Your task to perform on an android device: View the shopping cart on walmart. Search for macbook pro 13 inch on walmart, select the first entry, add it to the cart, then select checkout. Image 0: 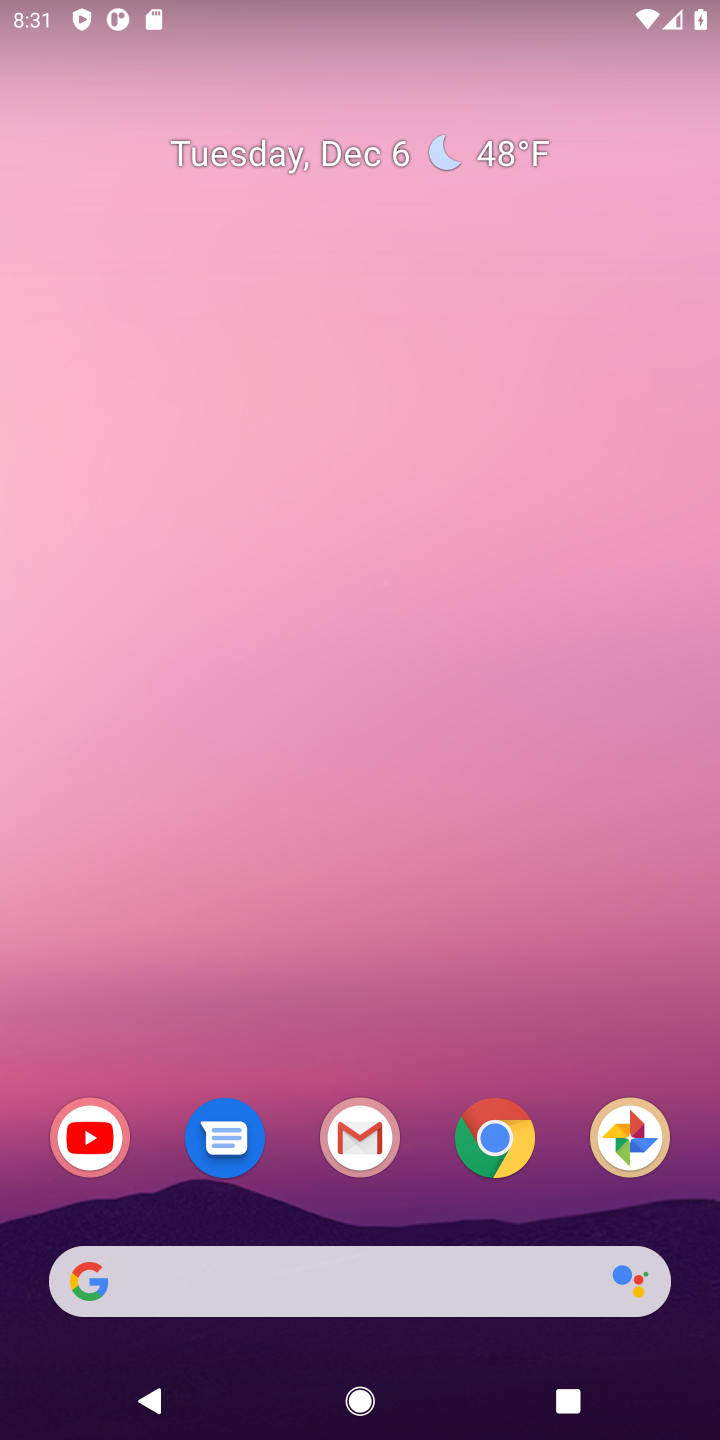
Step 0: click (517, 1138)
Your task to perform on an android device: View the shopping cart on walmart. Search for macbook pro 13 inch on walmart, select the first entry, add it to the cart, then select checkout. Image 1: 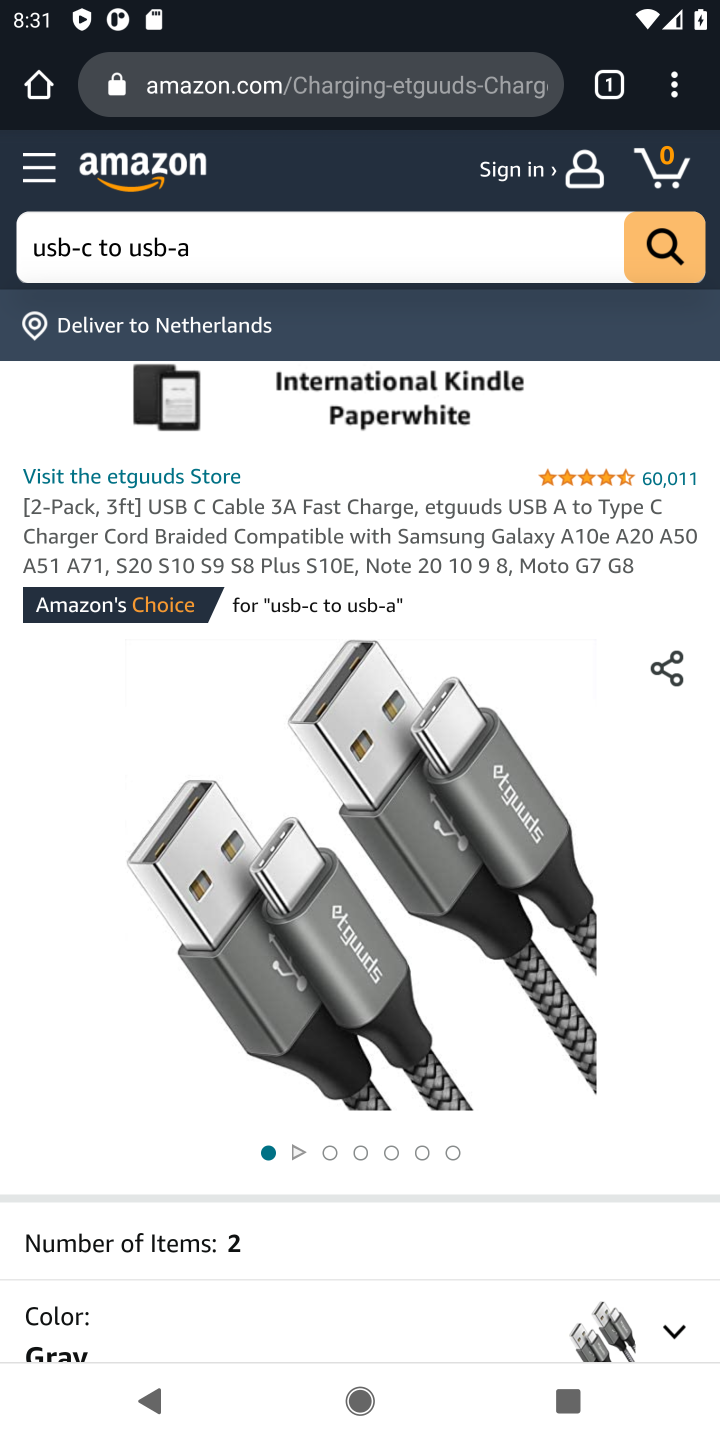
Step 1: click (255, 88)
Your task to perform on an android device: View the shopping cart on walmart. Search for macbook pro 13 inch on walmart, select the first entry, add it to the cart, then select checkout. Image 2: 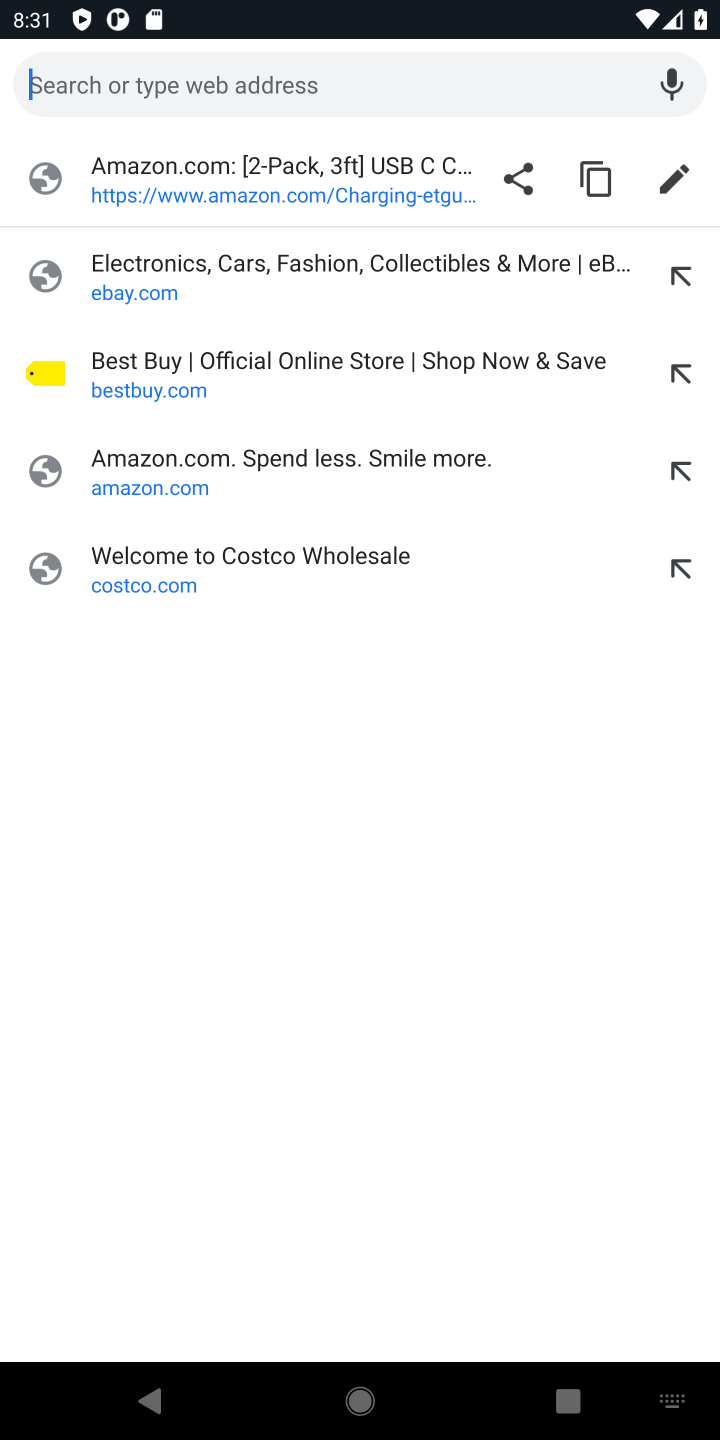
Step 2: type "walmart.com"
Your task to perform on an android device: View the shopping cart on walmart. Search for macbook pro 13 inch on walmart, select the first entry, add it to the cart, then select checkout. Image 3: 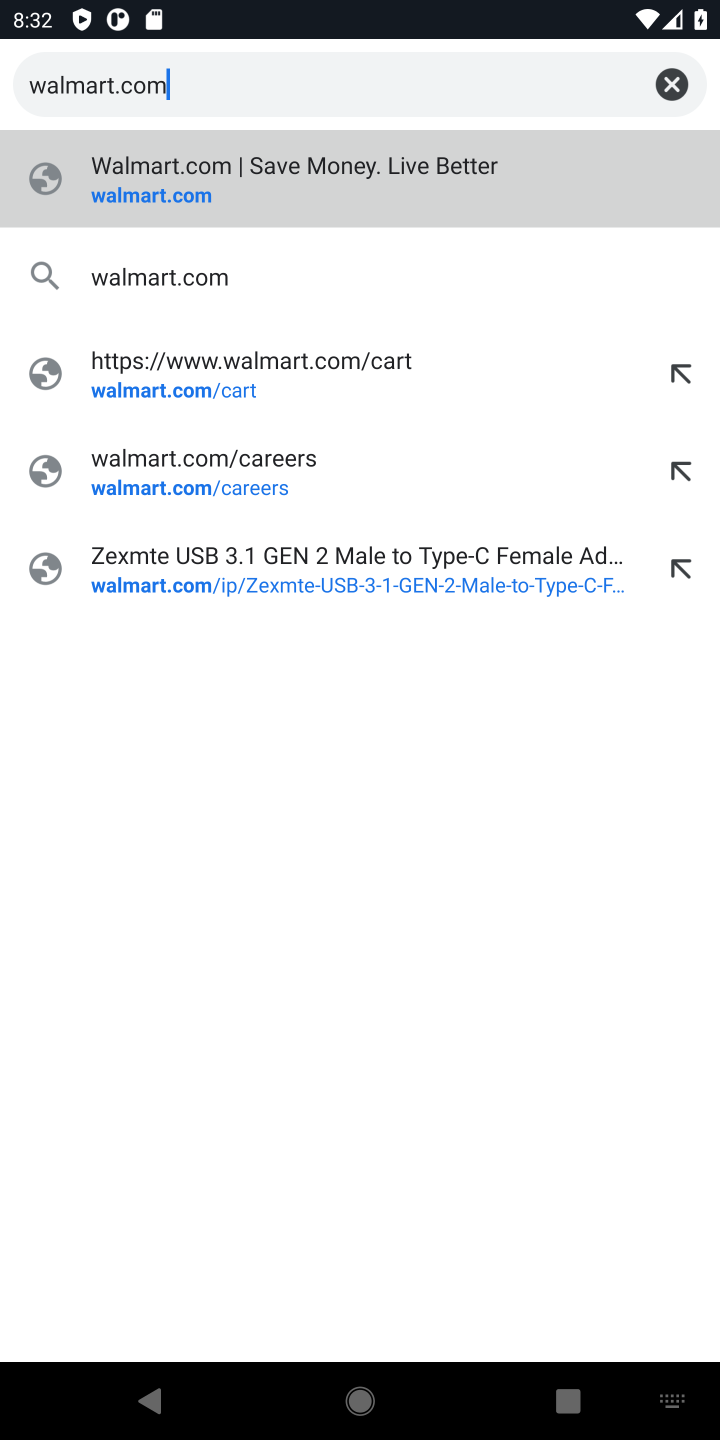
Step 3: click (138, 199)
Your task to perform on an android device: View the shopping cart on walmart. Search for macbook pro 13 inch on walmart, select the first entry, add it to the cart, then select checkout. Image 4: 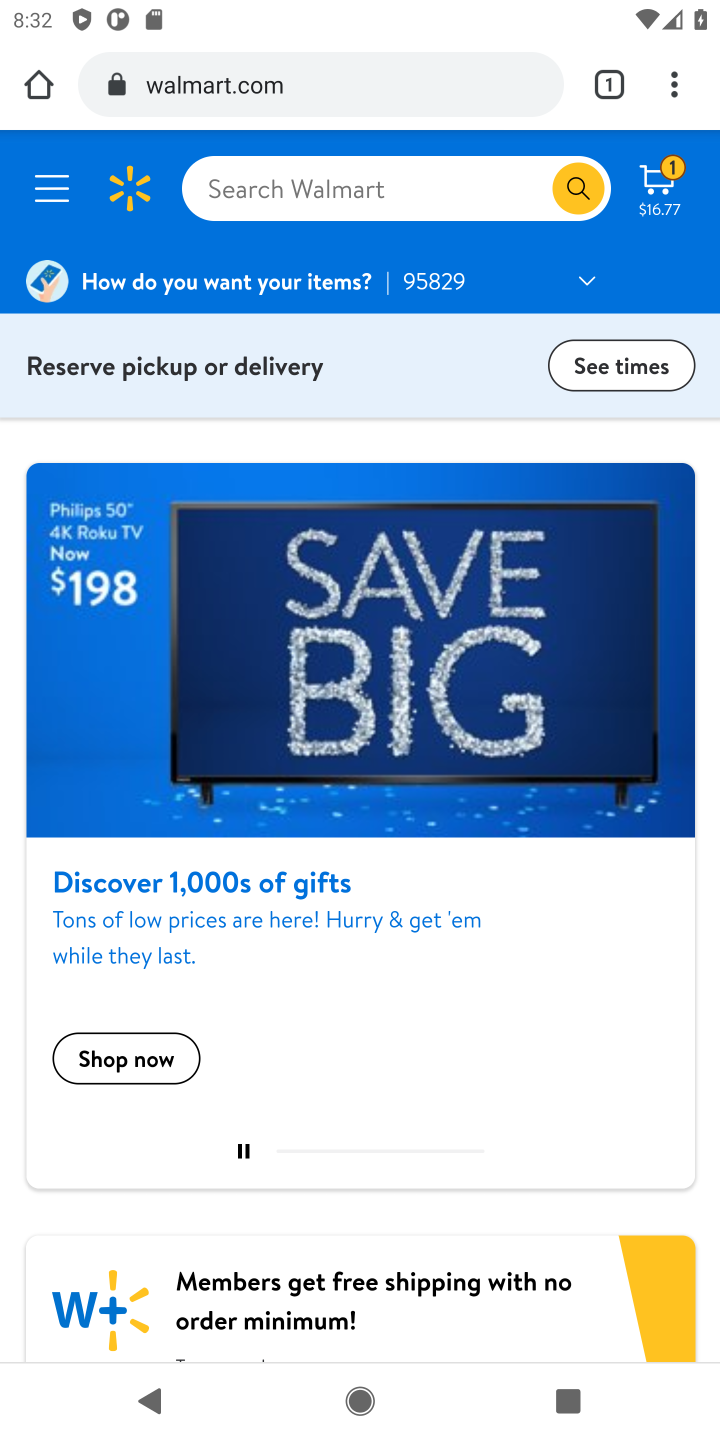
Step 4: click (661, 200)
Your task to perform on an android device: View the shopping cart on walmart. Search for macbook pro 13 inch on walmart, select the first entry, add it to the cart, then select checkout. Image 5: 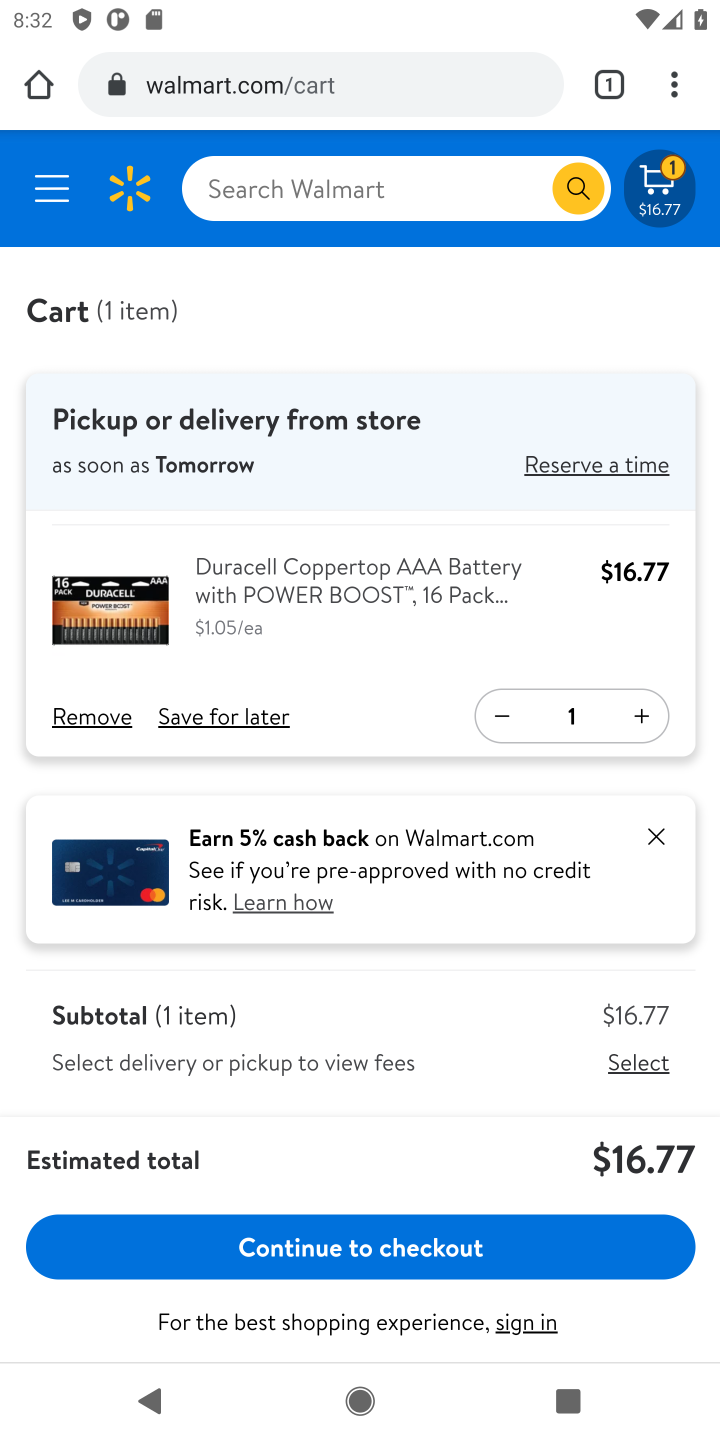
Step 5: click (323, 188)
Your task to perform on an android device: View the shopping cart on walmart. Search for macbook pro 13 inch on walmart, select the first entry, add it to the cart, then select checkout. Image 6: 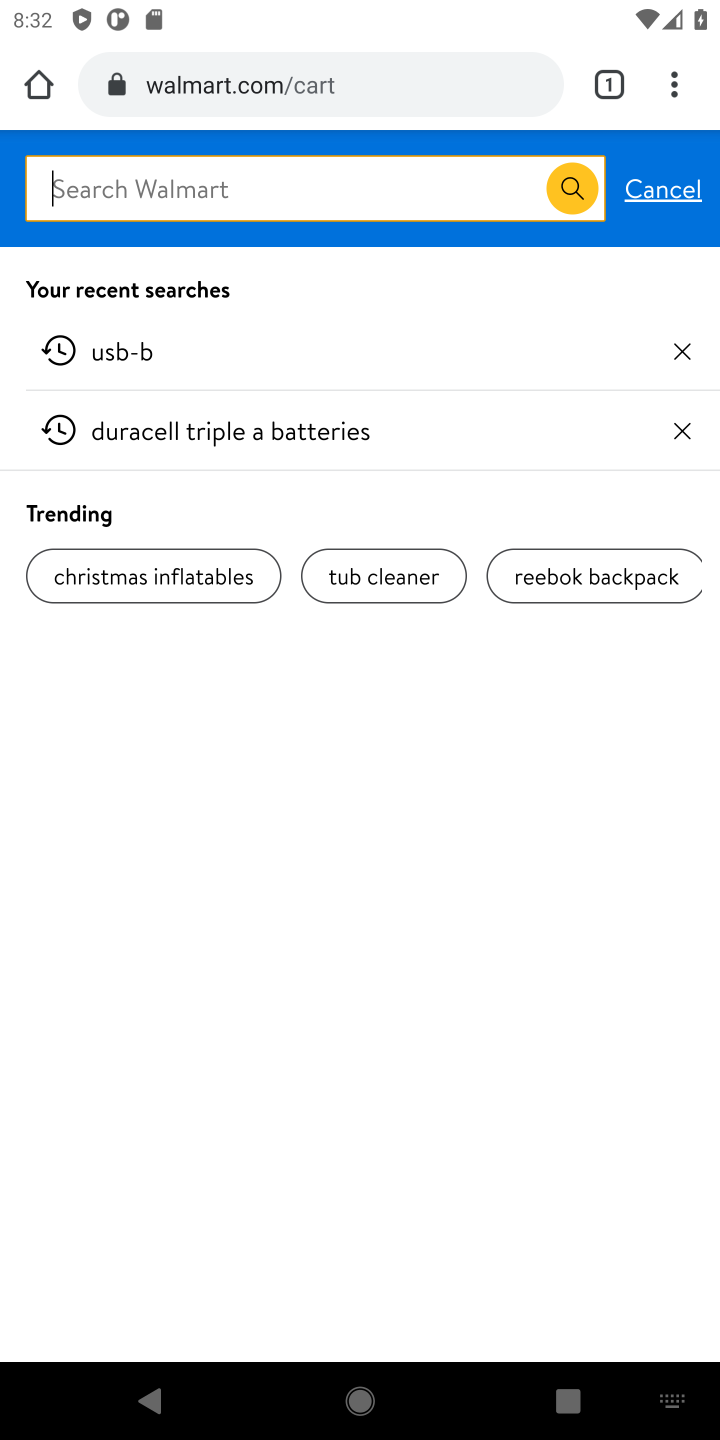
Step 6: type "macbook pro 13 inch"
Your task to perform on an android device: View the shopping cart on walmart. Search for macbook pro 13 inch on walmart, select the first entry, add it to the cart, then select checkout. Image 7: 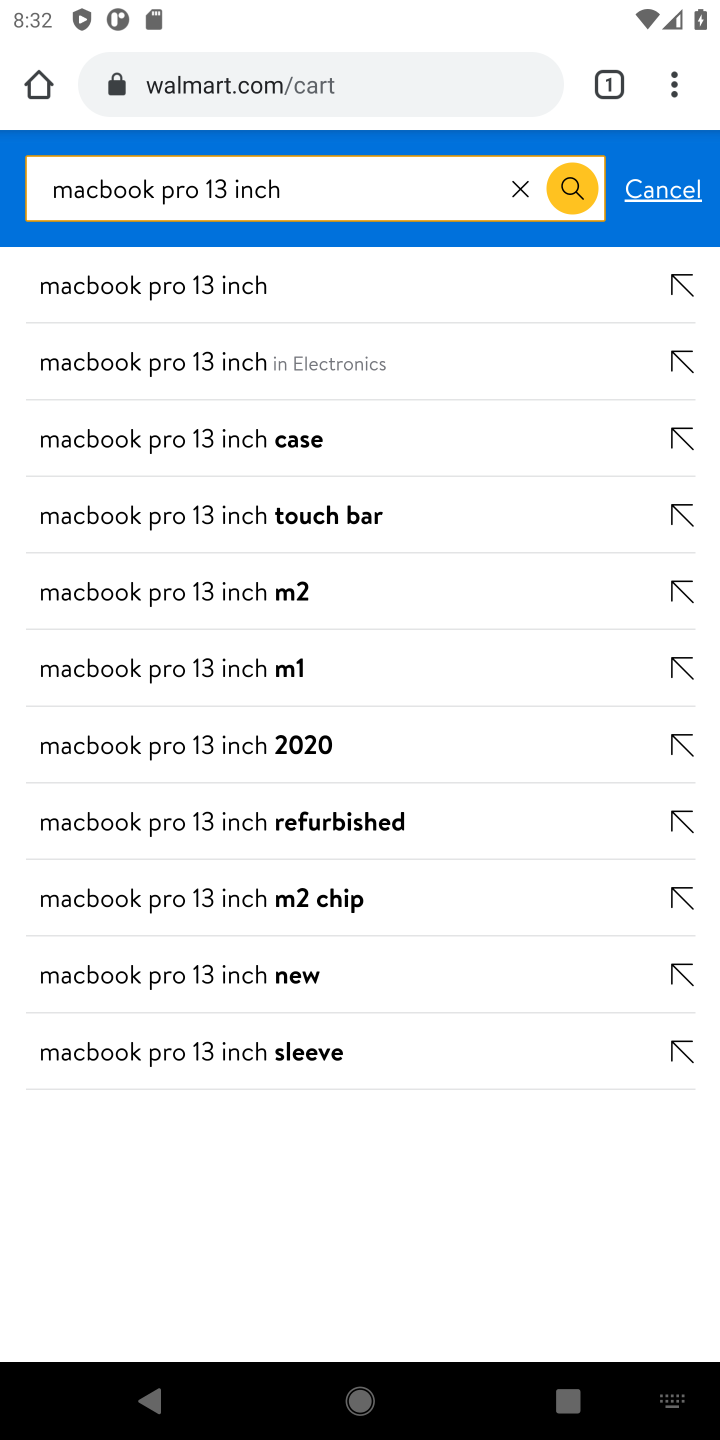
Step 7: click (194, 284)
Your task to perform on an android device: View the shopping cart on walmart. Search for macbook pro 13 inch on walmart, select the first entry, add it to the cart, then select checkout. Image 8: 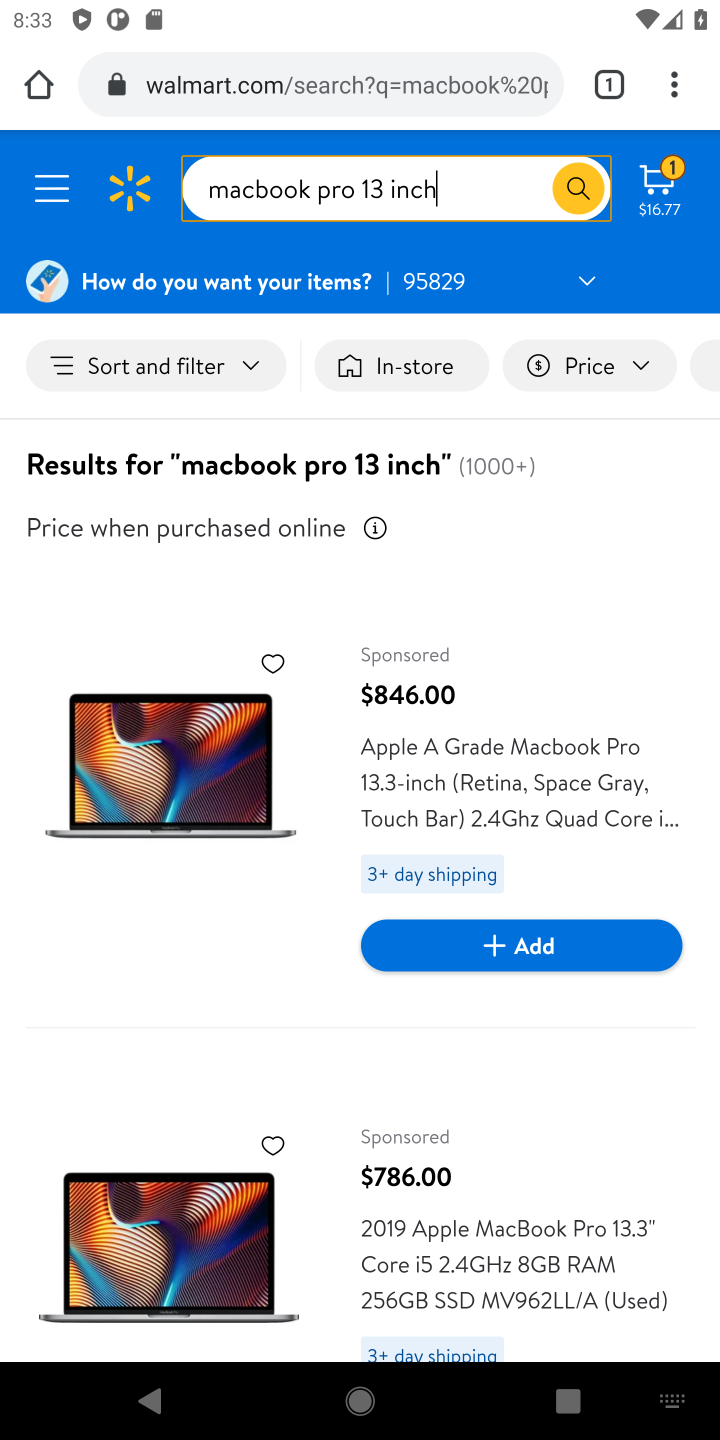
Step 8: click (487, 939)
Your task to perform on an android device: View the shopping cart on walmart. Search for macbook pro 13 inch on walmart, select the first entry, add it to the cart, then select checkout. Image 9: 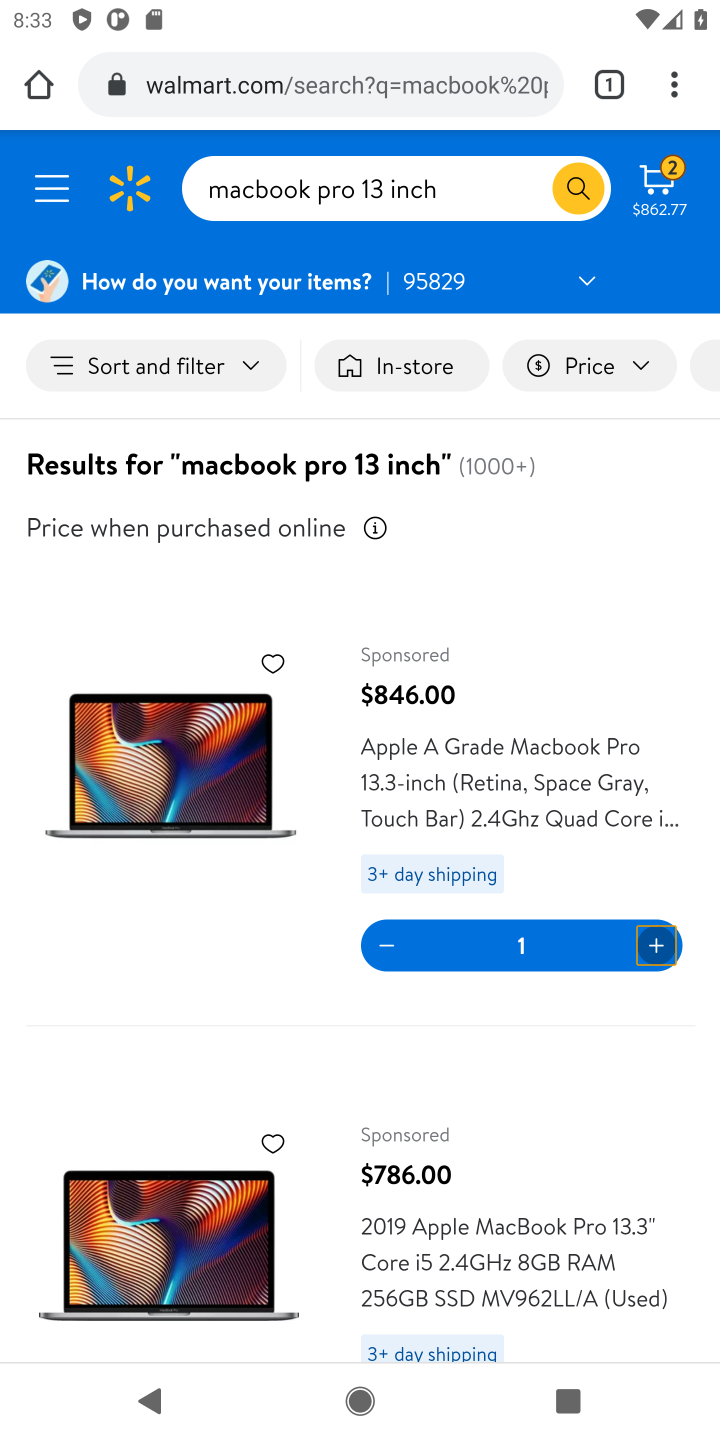
Step 9: click (662, 180)
Your task to perform on an android device: View the shopping cart on walmart. Search for macbook pro 13 inch on walmart, select the first entry, add it to the cart, then select checkout. Image 10: 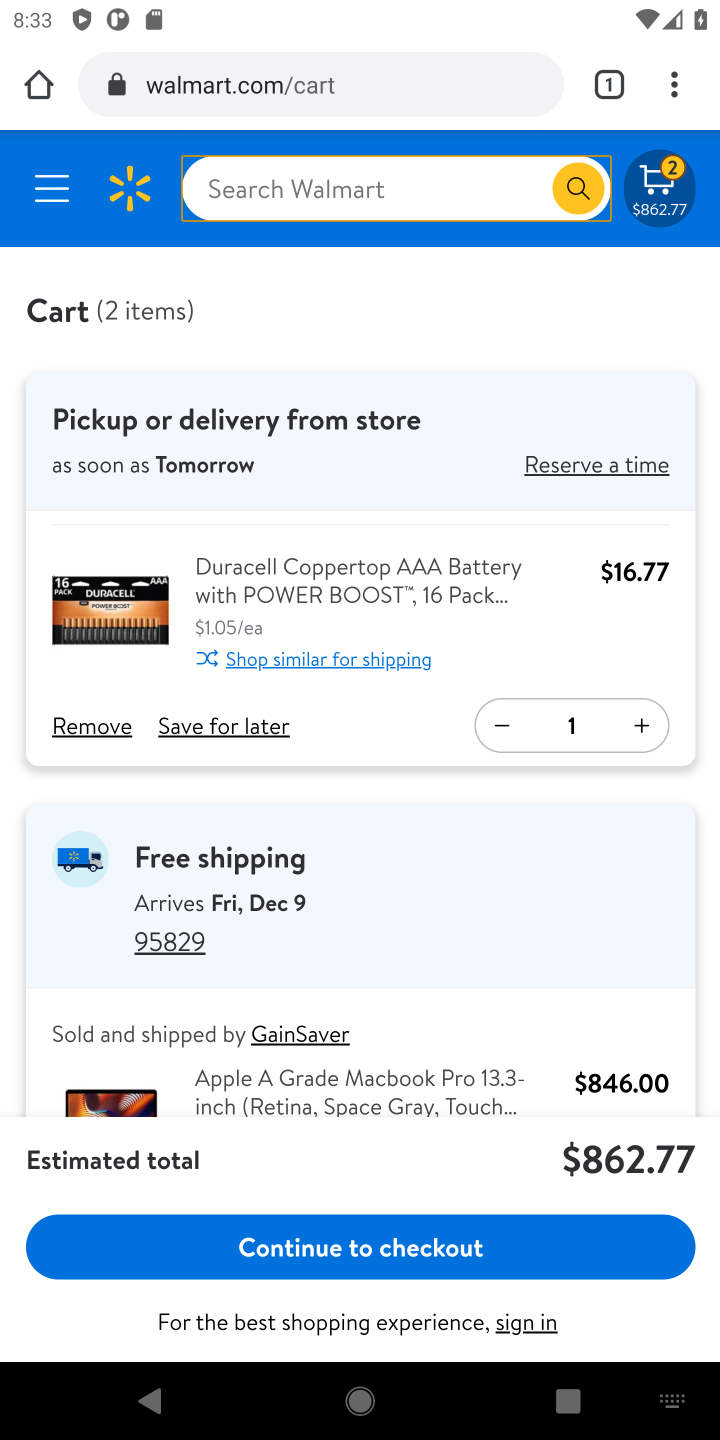
Step 10: click (302, 1245)
Your task to perform on an android device: View the shopping cart on walmart. Search for macbook pro 13 inch on walmart, select the first entry, add it to the cart, then select checkout. Image 11: 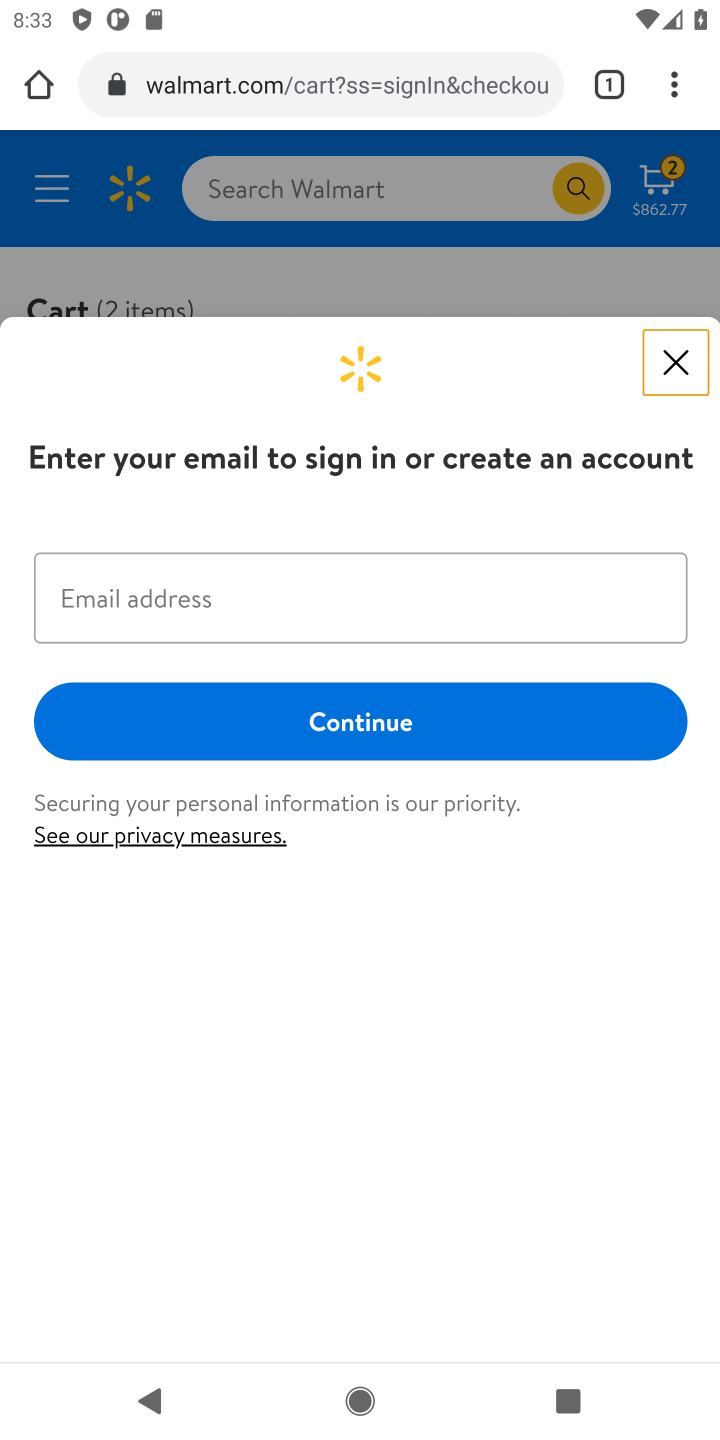
Step 11: task complete